Your task to perform on an android device: Open calendar and show me the third week of next month Image 0: 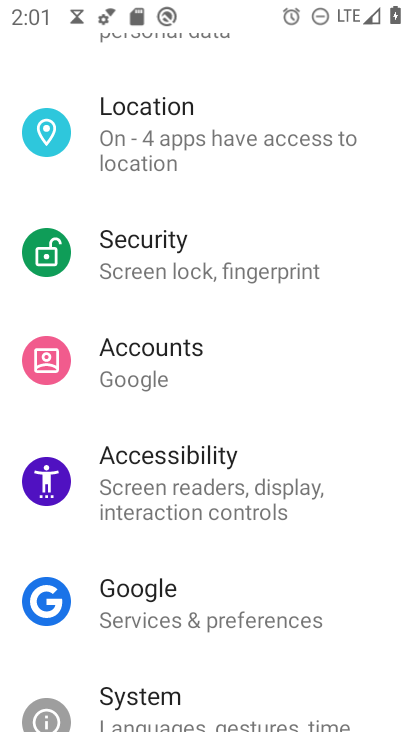
Step 0: press home button
Your task to perform on an android device: Open calendar and show me the third week of next month Image 1: 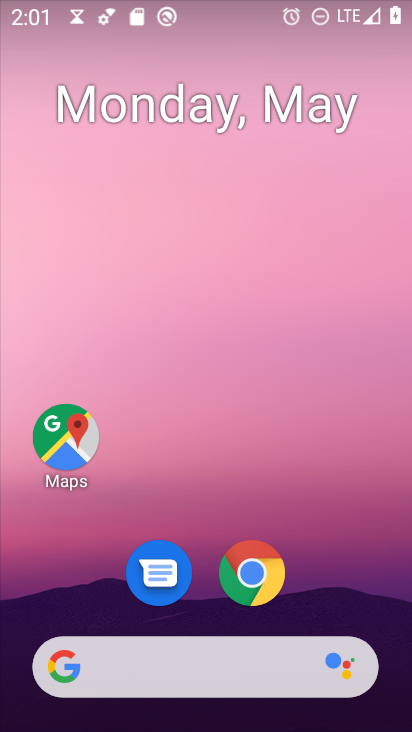
Step 1: drag from (347, 561) to (303, 3)
Your task to perform on an android device: Open calendar and show me the third week of next month Image 2: 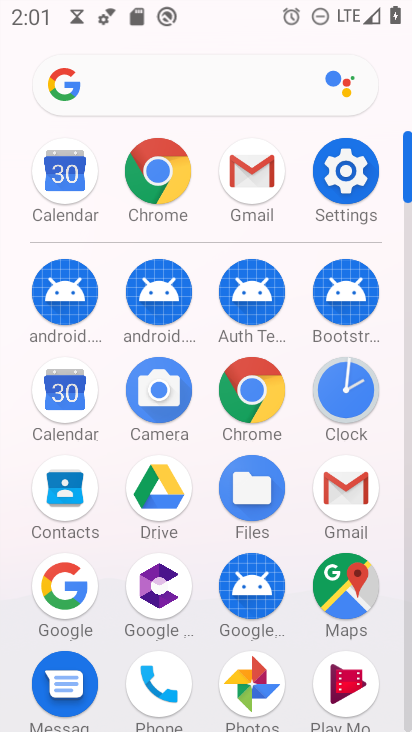
Step 2: click (65, 407)
Your task to perform on an android device: Open calendar and show me the third week of next month Image 3: 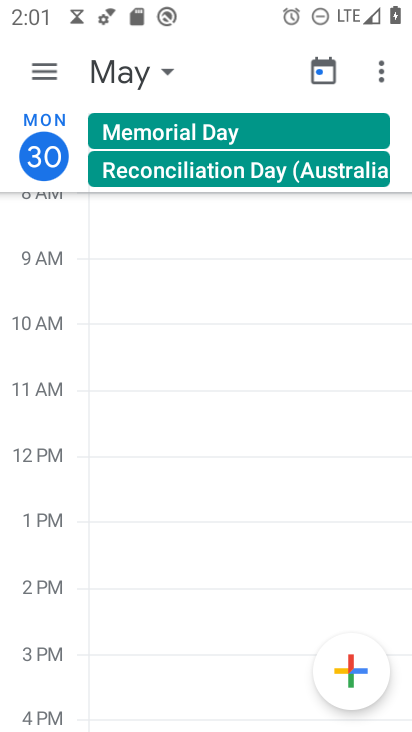
Step 3: click (167, 75)
Your task to perform on an android device: Open calendar and show me the third week of next month Image 4: 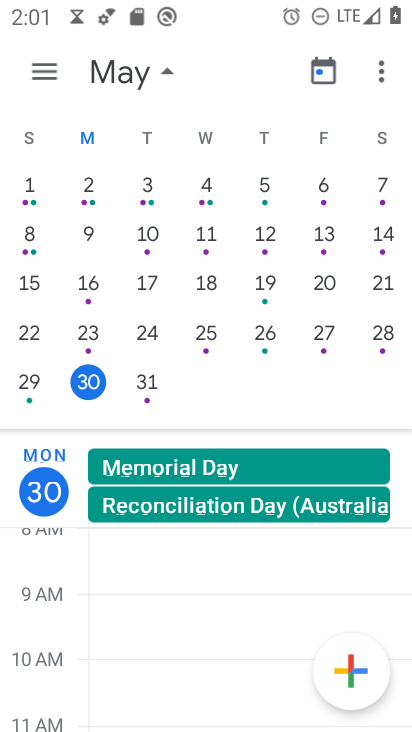
Step 4: drag from (342, 307) to (20, 390)
Your task to perform on an android device: Open calendar and show me the third week of next month Image 5: 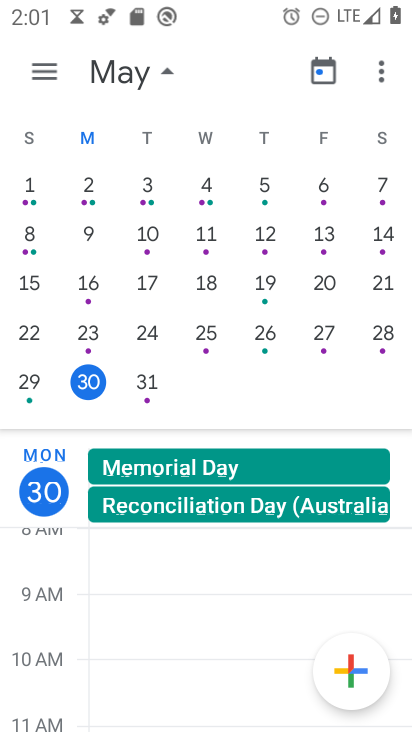
Step 5: drag from (368, 231) to (16, 340)
Your task to perform on an android device: Open calendar and show me the third week of next month Image 6: 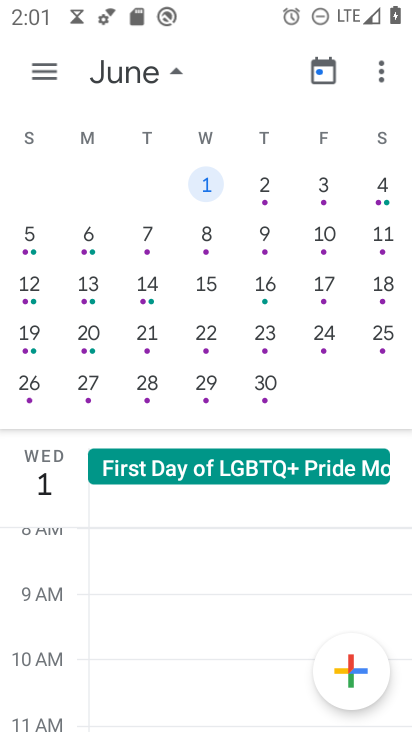
Step 6: click (210, 283)
Your task to perform on an android device: Open calendar and show me the third week of next month Image 7: 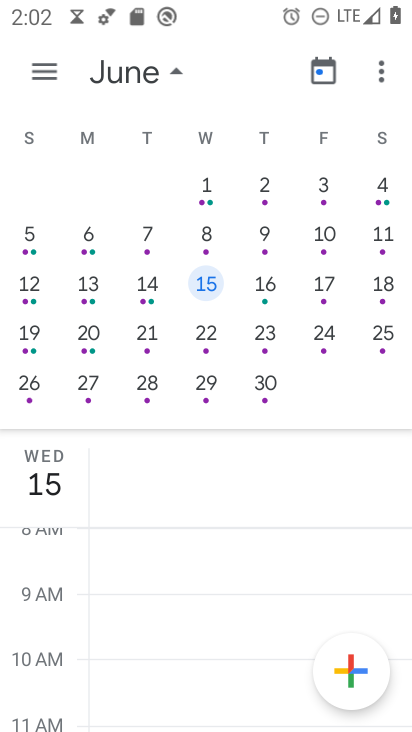
Step 7: task complete